Your task to perform on an android device: change text size in settings app Image 0: 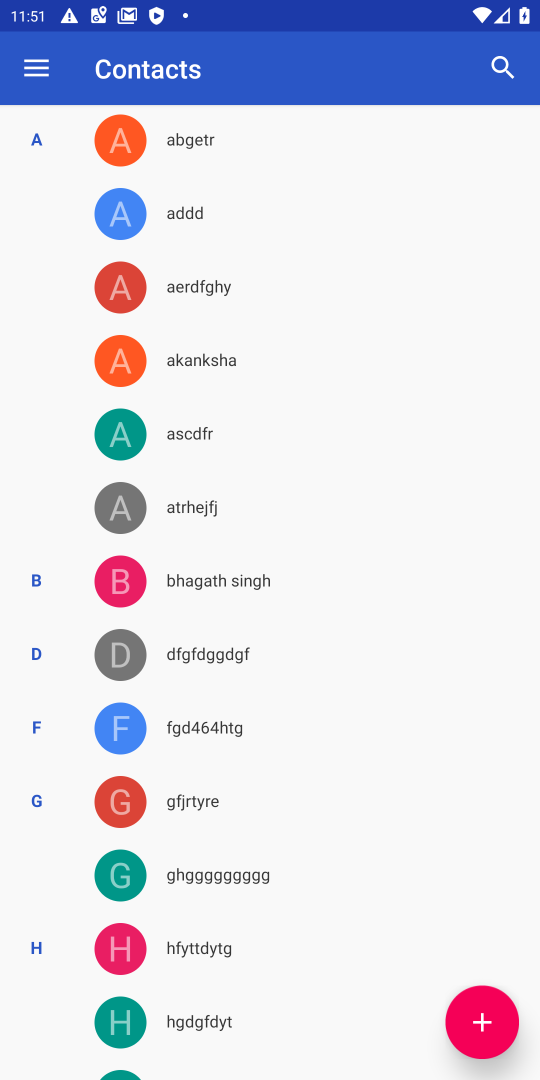
Step 0: press home button
Your task to perform on an android device: change text size in settings app Image 1: 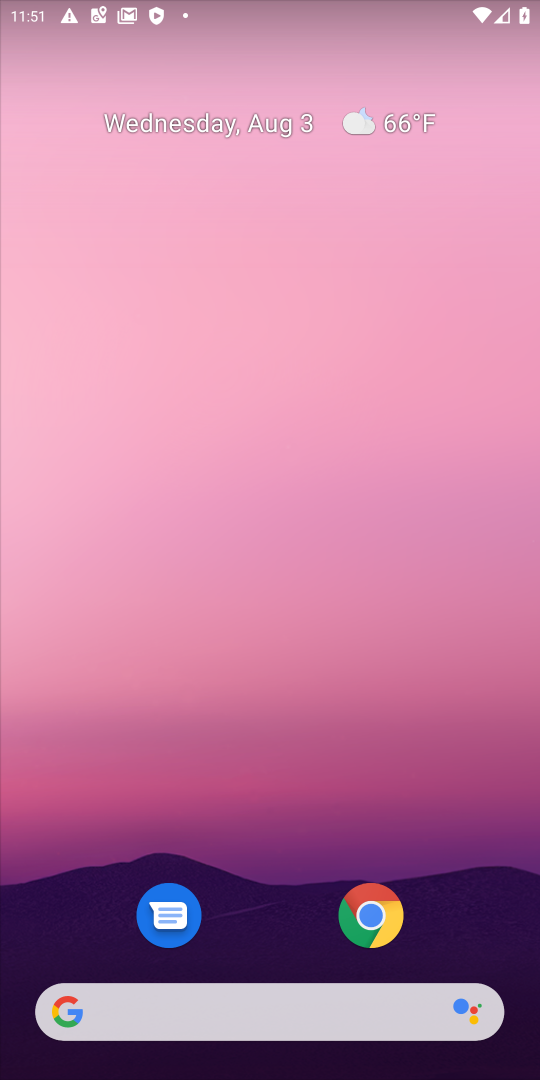
Step 1: drag from (243, 913) to (314, 66)
Your task to perform on an android device: change text size in settings app Image 2: 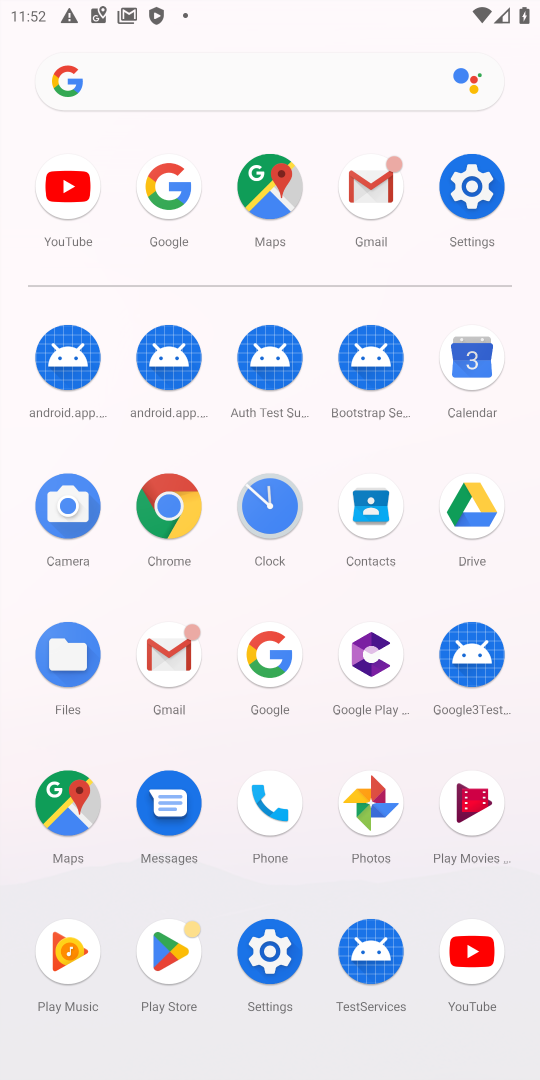
Step 2: click (475, 201)
Your task to perform on an android device: change text size in settings app Image 3: 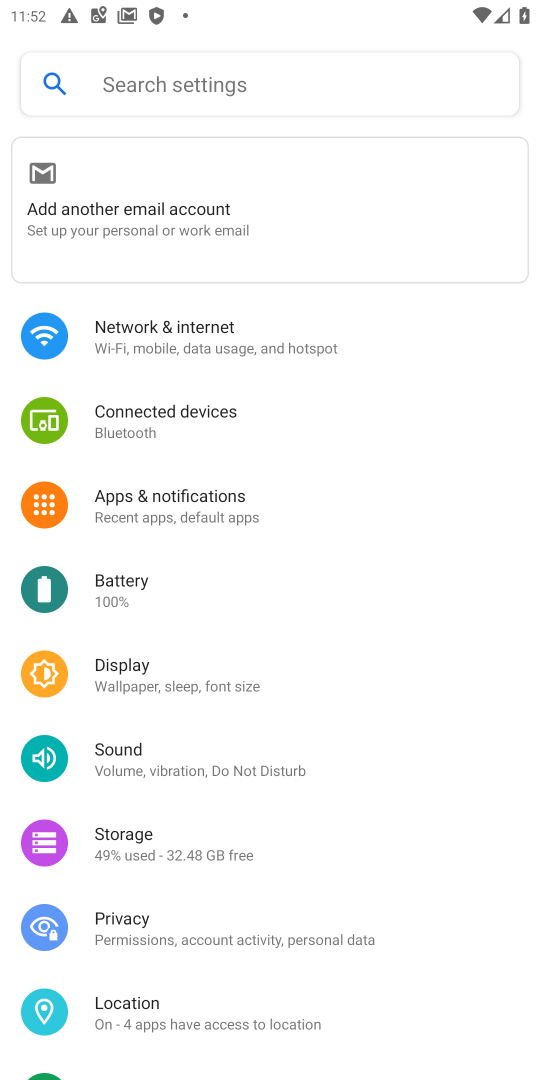
Step 3: click (100, 690)
Your task to perform on an android device: change text size in settings app Image 4: 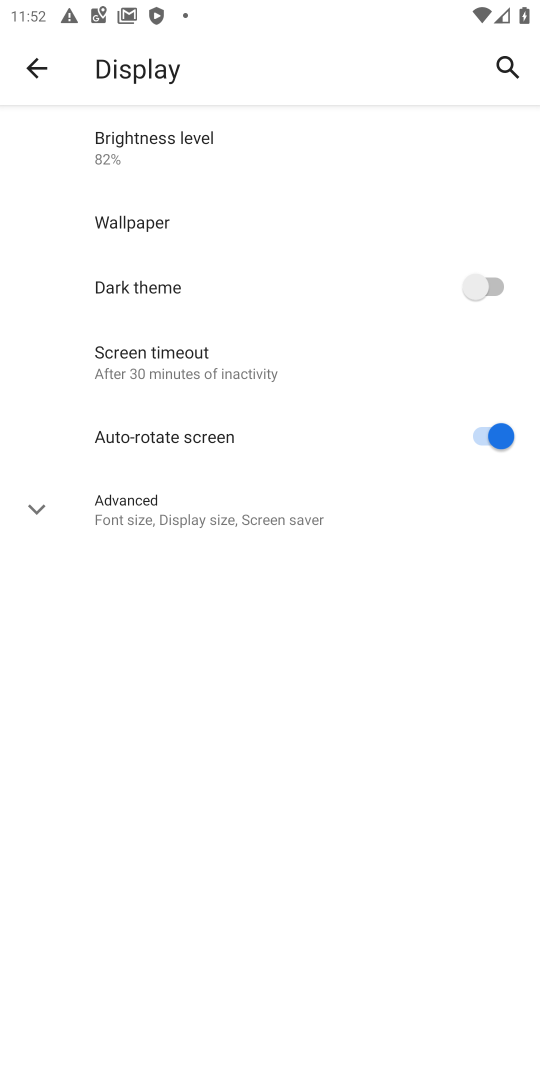
Step 4: click (190, 513)
Your task to perform on an android device: change text size in settings app Image 5: 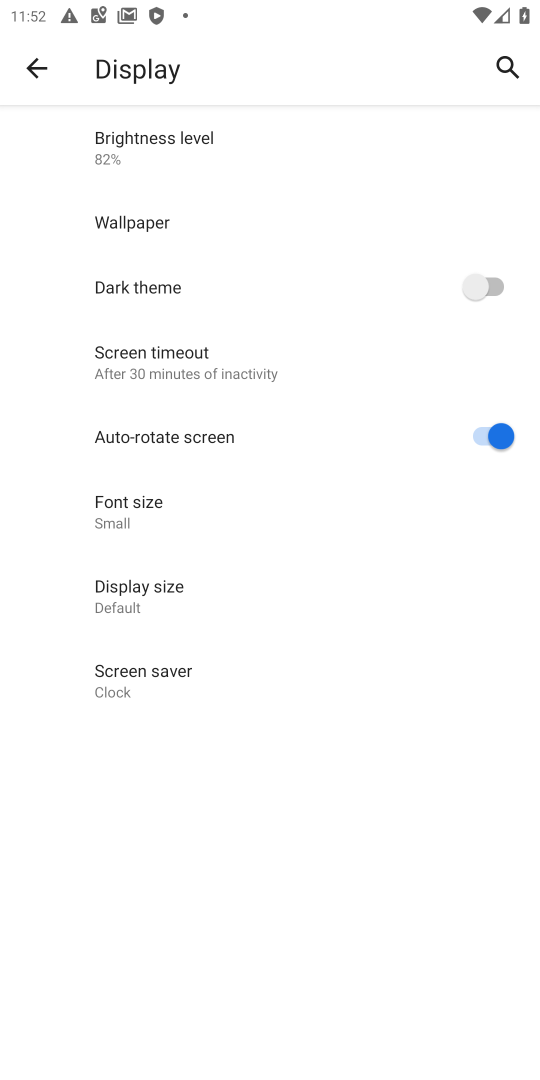
Step 5: click (148, 523)
Your task to perform on an android device: change text size in settings app Image 6: 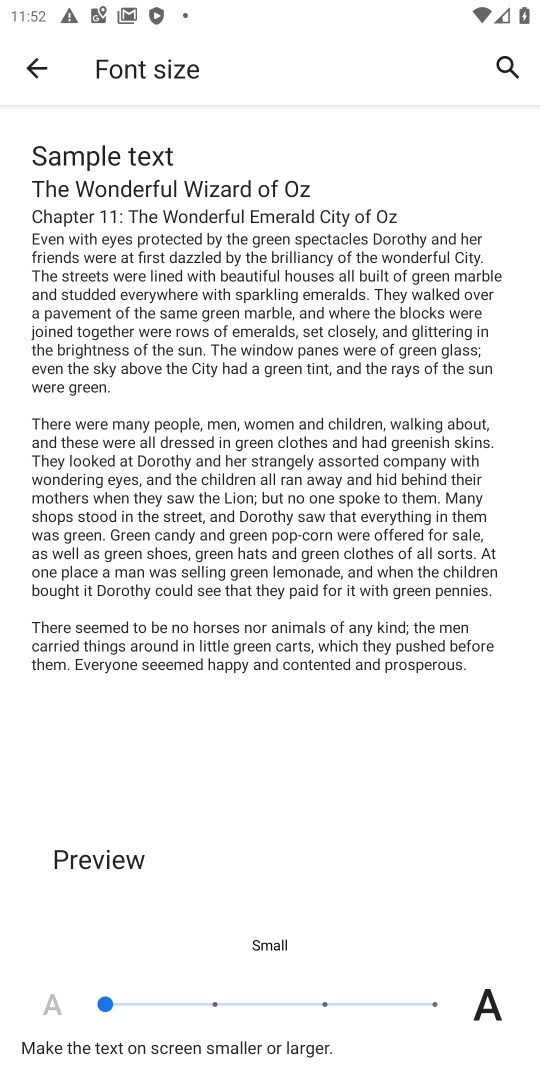
Step 6: click (208, 1007)
Your task to perform on an android device: change text size in settings app Image 7: 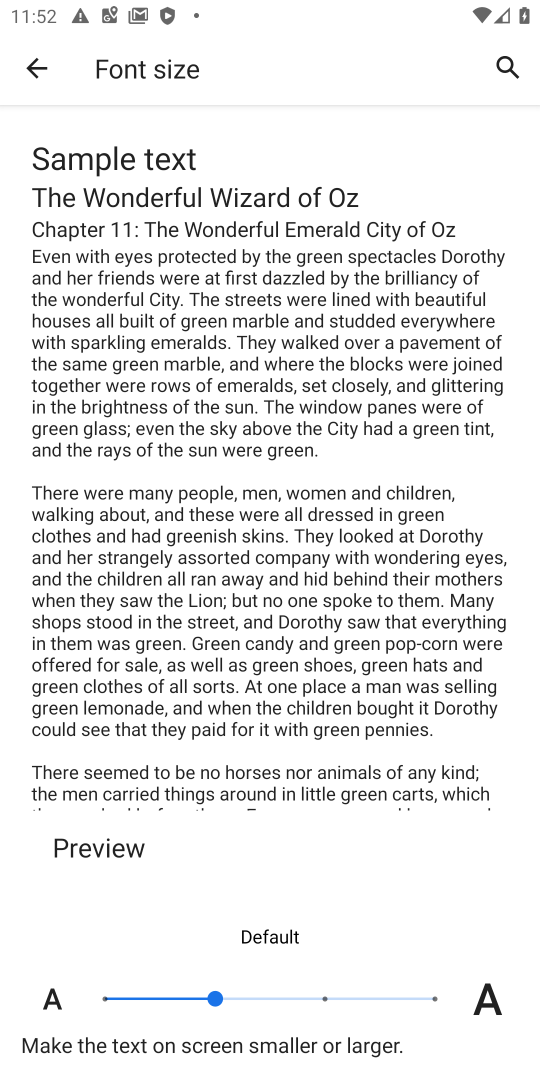
Step 7: task complete